Your task to perform on an android device: Search for sony triple a on walmart.com, select the first entry, and add it to the cart. Image 0: 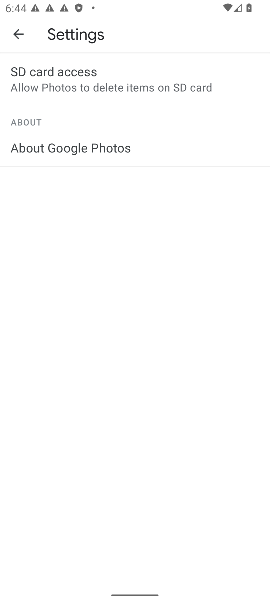
Step 0: press home button
Your task to perform on an android device: Search for sony triple a on walmart.com, select the first entry, and add it to the cart. Image 1: 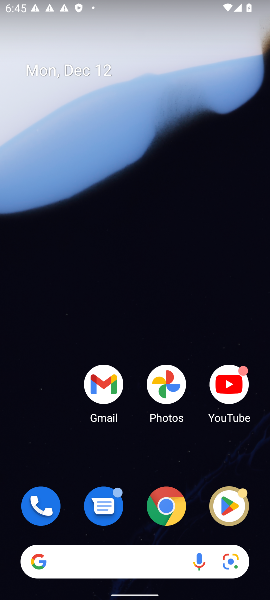
Step 1: click (156, 502)
Your task to perform on an android device: Search for sony triple a on walmart.com, select the first entry, and add it to the cart. Image 2: 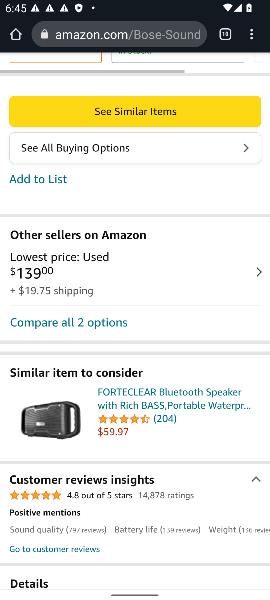
Step 2: task complete